Your task to perform on an android device: Search for Mexican restaurants on Maps Image 0: 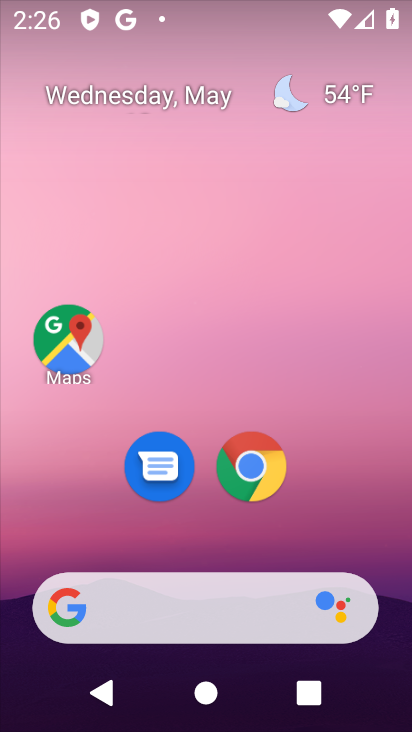
Step 0: click (57, 361)
Your task to perform on an android device: Search for Mexican restaurants on Maps Image 1: 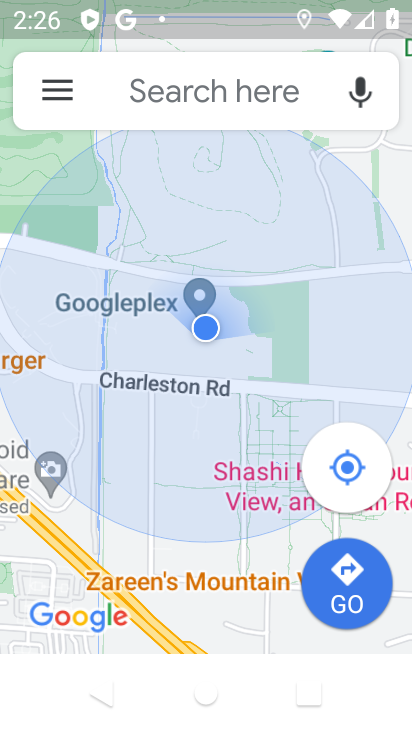
Step 1: click (236, 68)
Your task to perform on an android device: Search for Mexican restaurants on Maps Image 2: 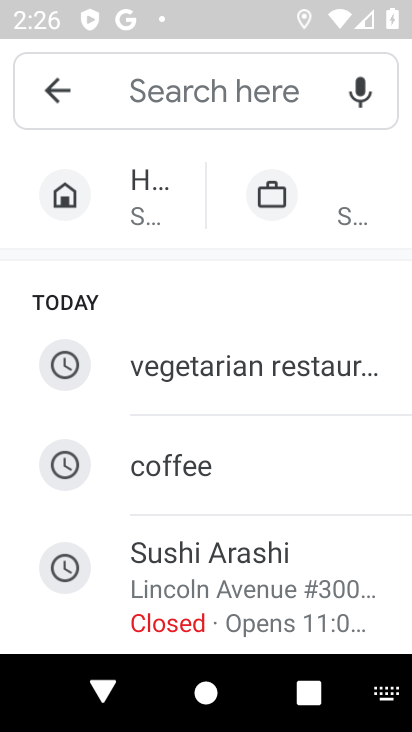
Step 2: type "mexican restaurants"
Your task to perform on an android device: Search for Mexican restaurants on Maps Image 3: 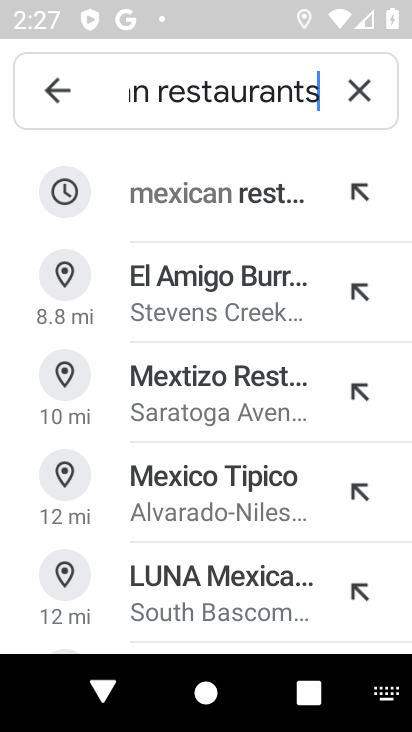
Step 3: click (278, 177)
Your task to perform on an android device: Search for Mexican restaurants on Maps Image 4: 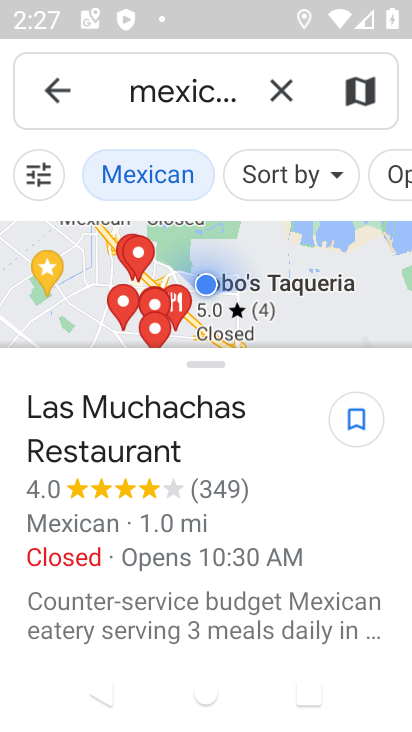
Step 4: task complete